Your task to perform on an android device: uninstall "Booking.com: Hotels and more" Image 0: 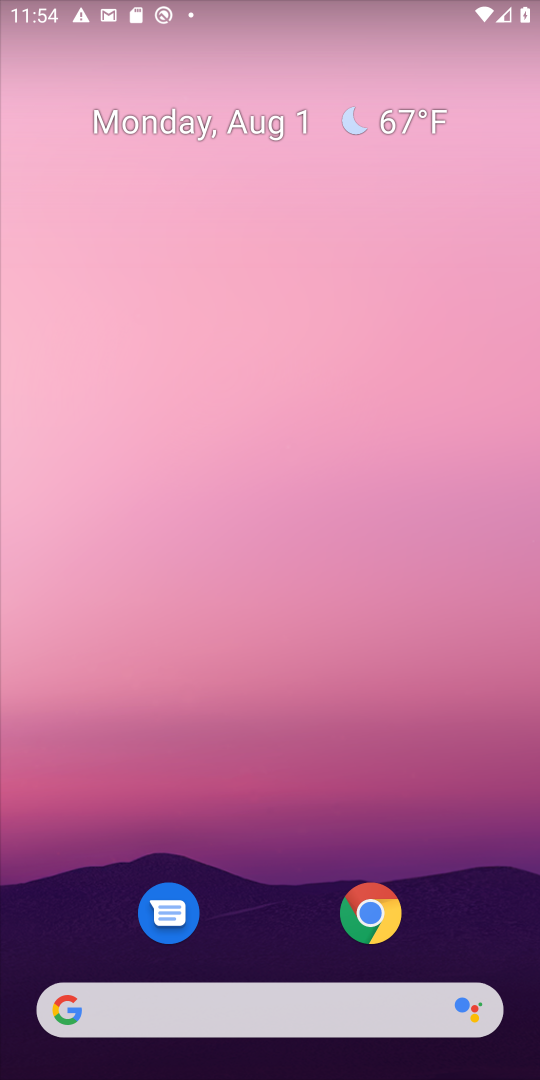
Step 0: drag from (520, 1033) to (477, 76)
Your task to perform on an android device: uninstall "Booking.com: Hotels and more" Image 1: 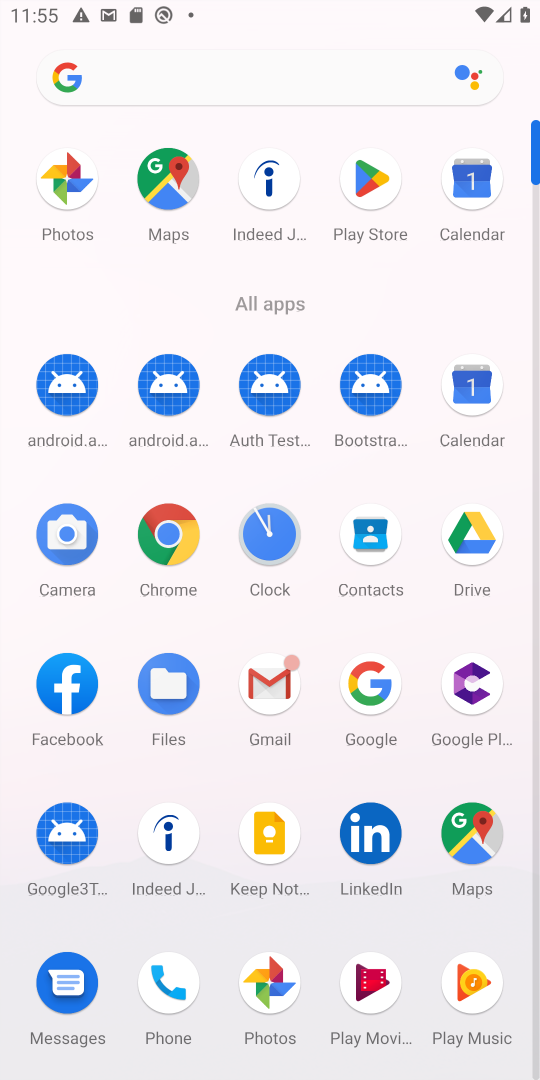
Step 1: click (369, 175)
Your task to perform on an android device: uninstall "Booking.com: Hotels and more" Image 2: 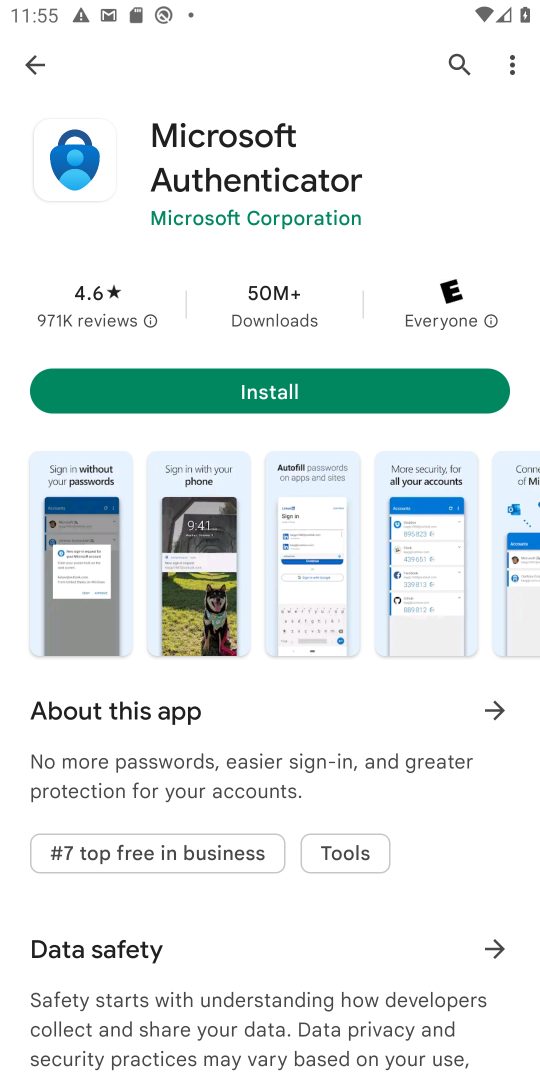
Step 2: click (459, 54)
Your task to perform on an android device: uninstall "Booking.com: Hotels and more" Image 3: 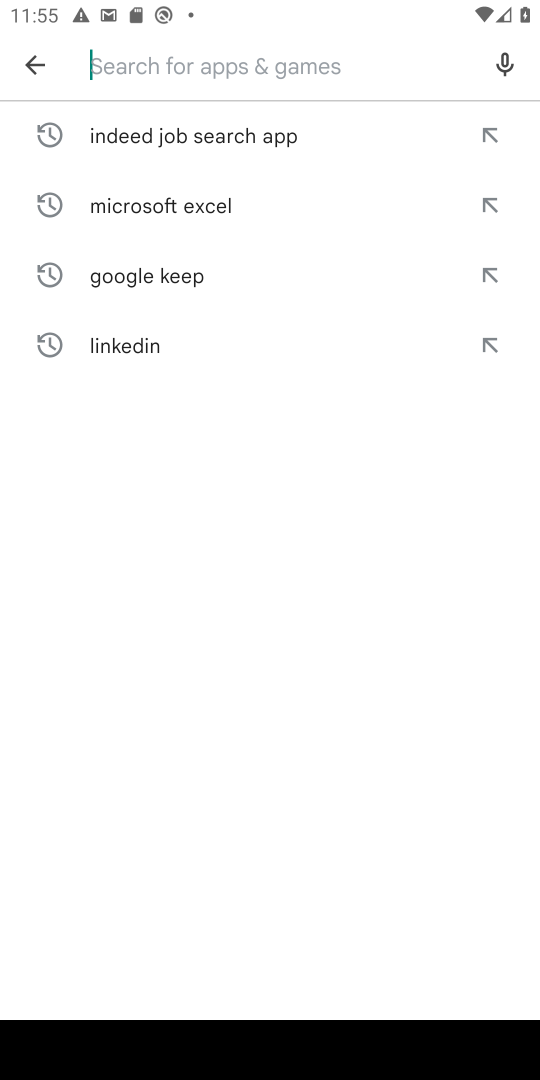
Step 3: type "Booking.com: Hotels and more"
Your task to perform on an android device: uninstall "Booking.com: Hotels and more" Image 4: 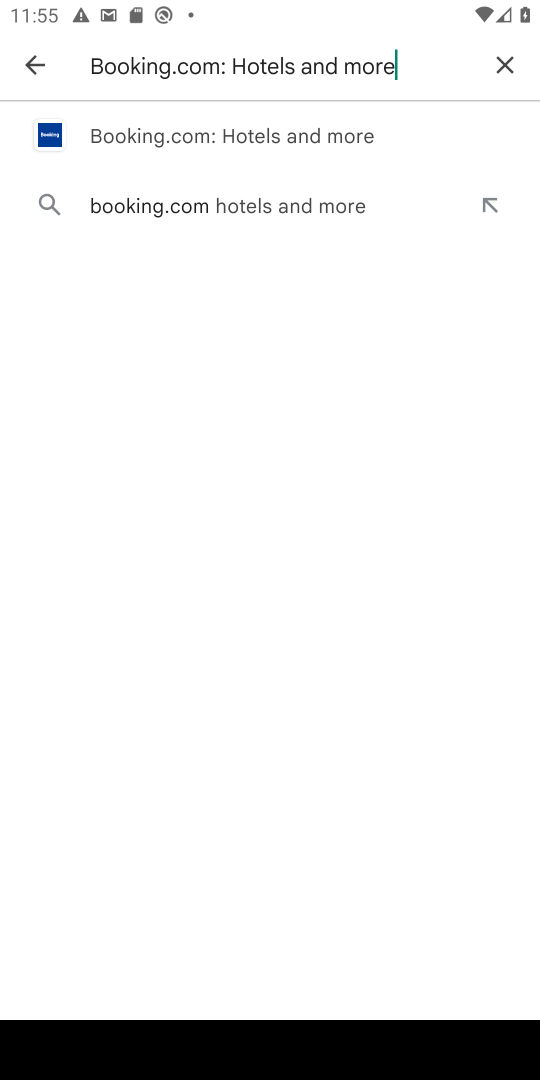
Step 4: click (188, 130)
Your task to perform on an android device: uninstall "Booking.com: Hotels and more" Image 5: 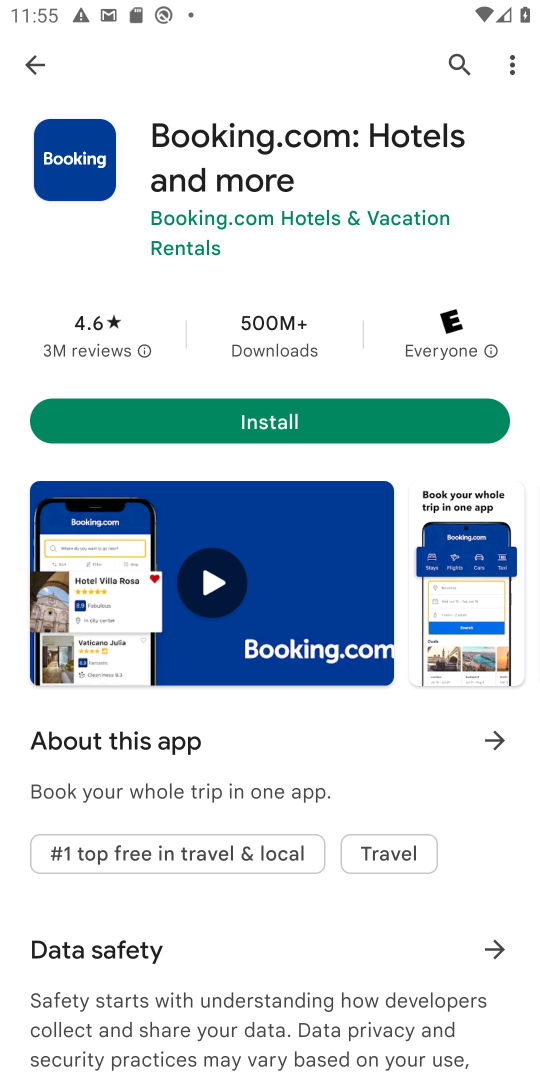
Step 5: task complete